Your task to perform on an android device: Search for a sofa on article.com Image 0: 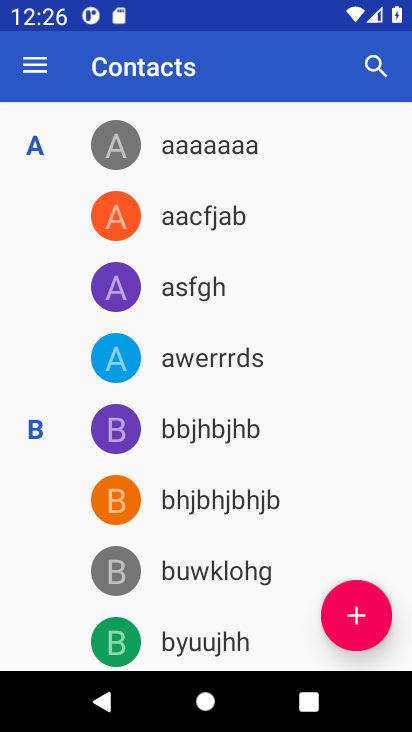
Step 0: press home button
Your task to perform on an android device: Search for a sofa on article.com Image 1: 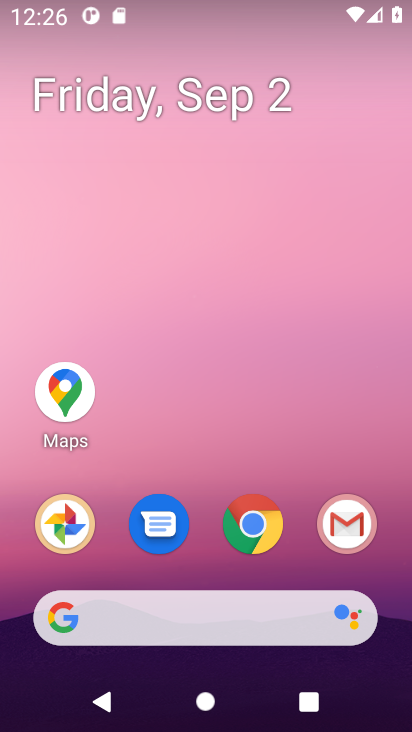
Step 1: click (388, 544)
Your task to perform on an android device: Search for a sofa on article.com Image 2: 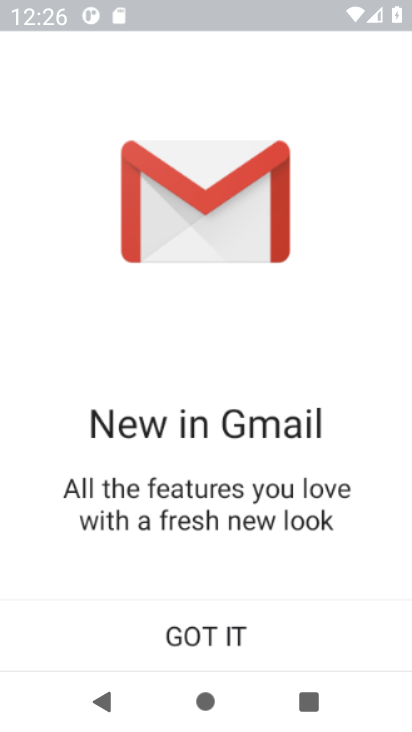
Step 2: click (247, 624)
Your task to perform on an android device: Search for a sofa on article.com Image 3: 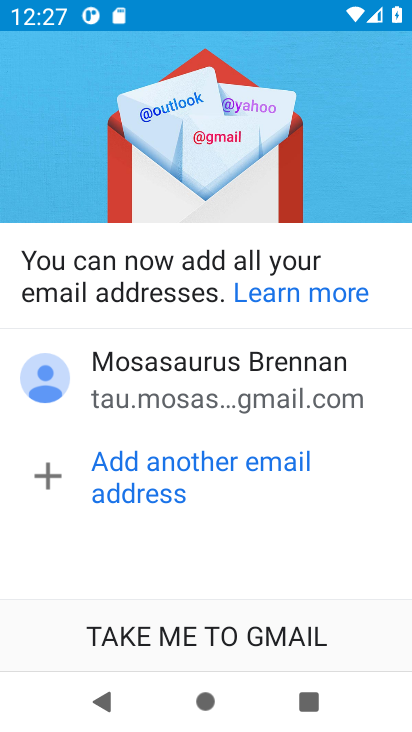
Step 3: press home button
Your task to perform on an android device: Search for a sofa on article.com Image 4: 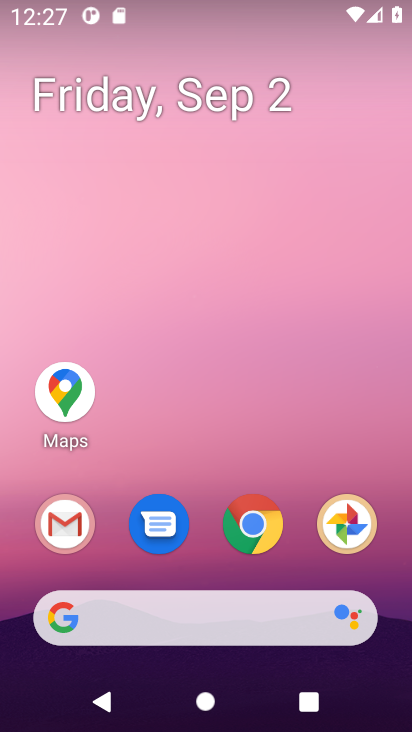
Step 4: click (251, 613)
Your task to perform on an android device: Search for a sofa on article.com Image 5: 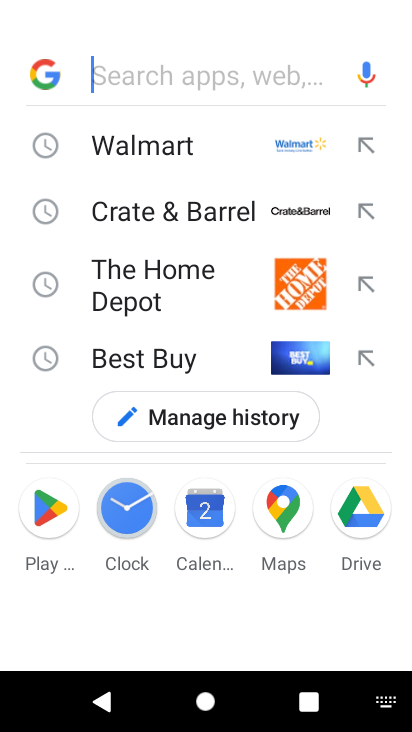
Step 5: press enter
Your task to perform on an android device: Search for a sofa on article.com Image 6: 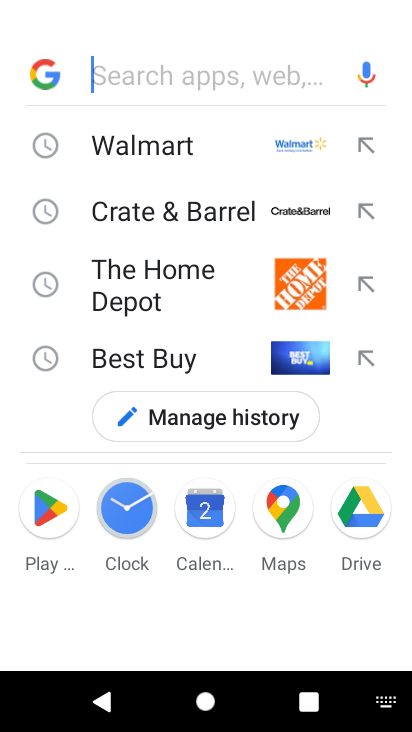
Step 6: type "article.com"
Your task to perform on an android device: Search for a sofa on article.com Image 7: 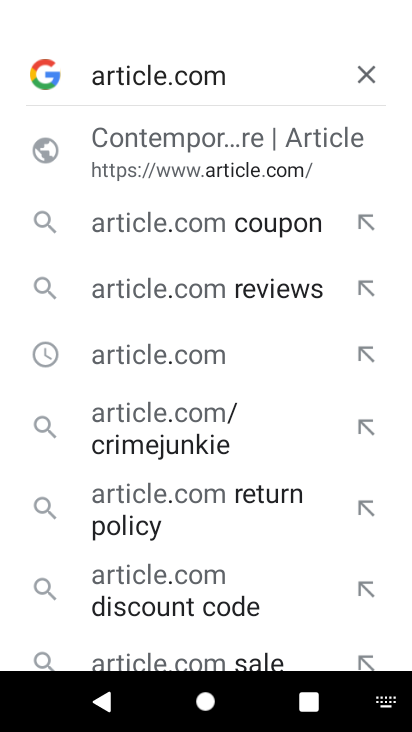
Step 7: click (276, 159)
Your task to perform on an android device: Search for a sofa on article.com Image 8: 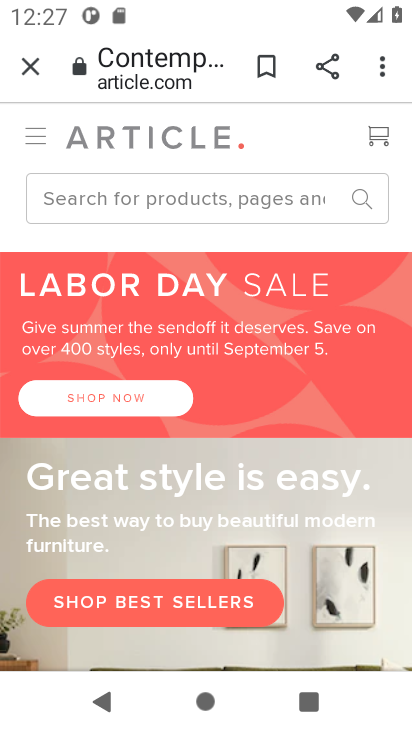
Step 8: click (244, 204)
Your task to perform on an android device: Search for a sofa on article.com Image 9: 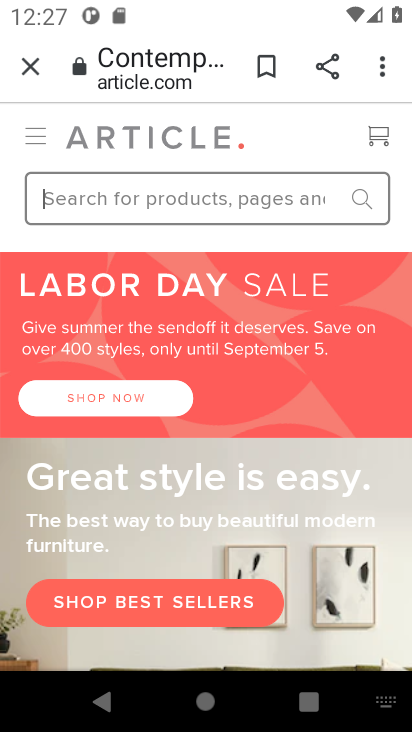
Step 9: press enter
Your task to perform on an android device: Search for a sofa on article.com Image 10: 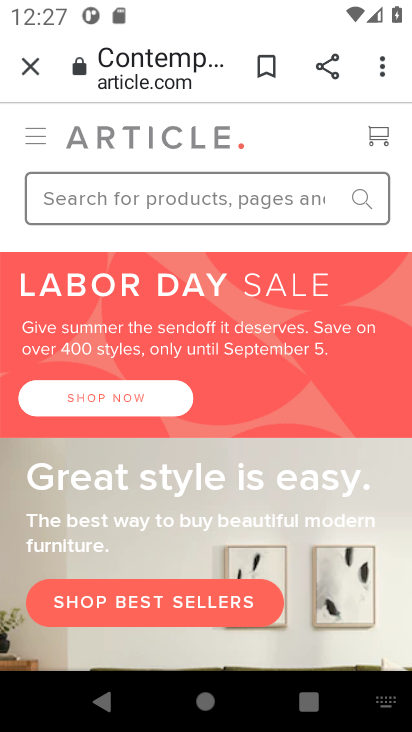
Step 10: type "sofa"
Your task to perform on an android device: Search for a sofa on article.com Image 11: 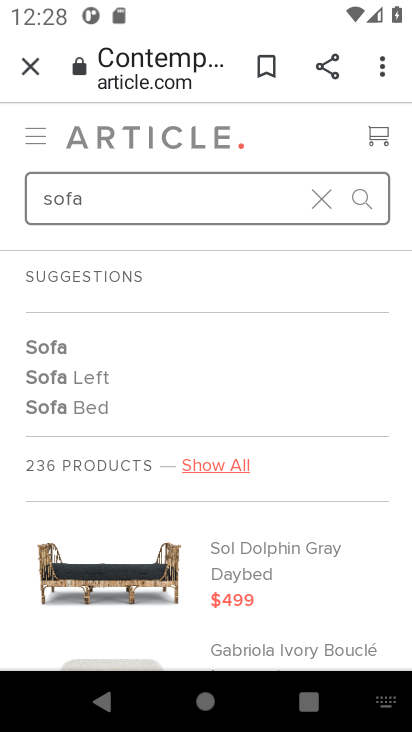
Step 11: click (50, 340)
Your task to perform on an android device: Search for a sofa on article.com Image 12: 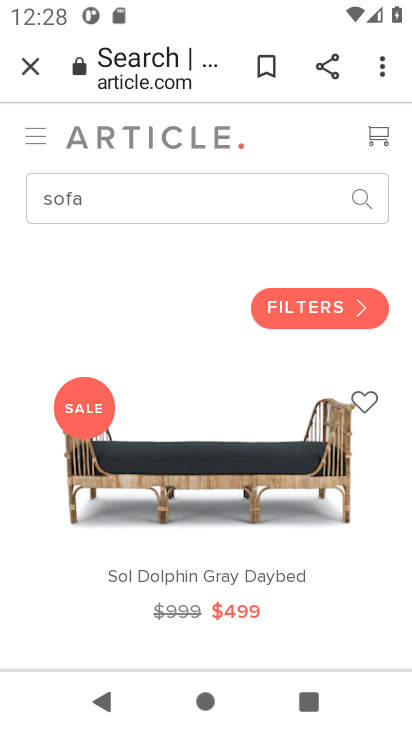
Step 12: task complete